Your task to perform on an android device: Search for vegetarian restaurants on Maps Image 0: 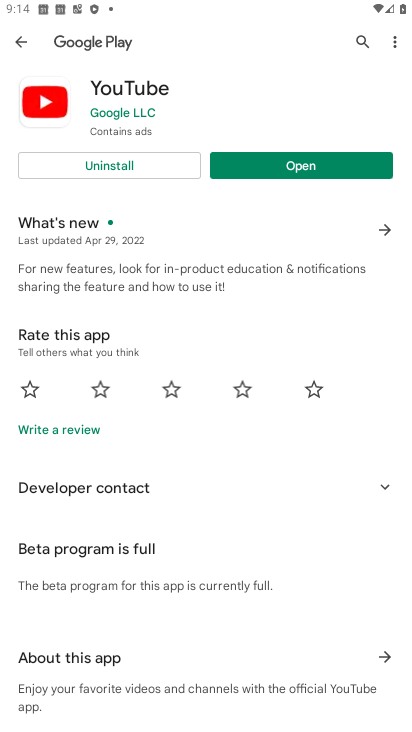
Step 0: press home button
Your task to perform on an android device: Search for vegetarian restaurants on Maps Image 1: 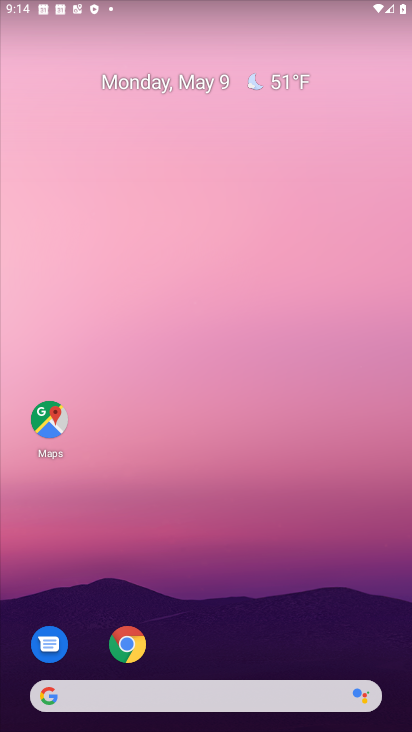
Step 1: drag from (192, 691) to (135, 32)
Your task to perform on an android device: Search for vegetarian restaurants on Maps Image 2: 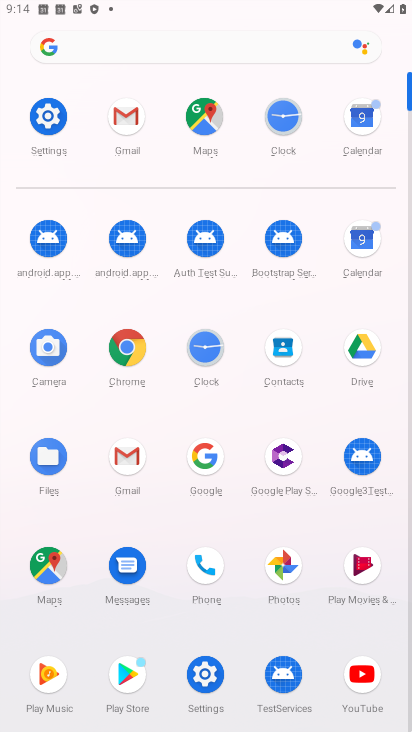
Step 2: click (55, 559)
Your task to perform on an android device: Search for vegetarian restaurants on Maps Image 3: 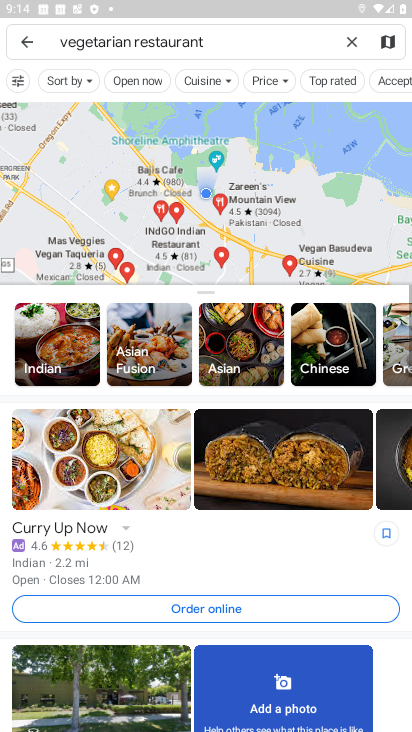
Step 3: task complete